Your task to perform on an android device: turn on data saver in the chrome app Image 0: 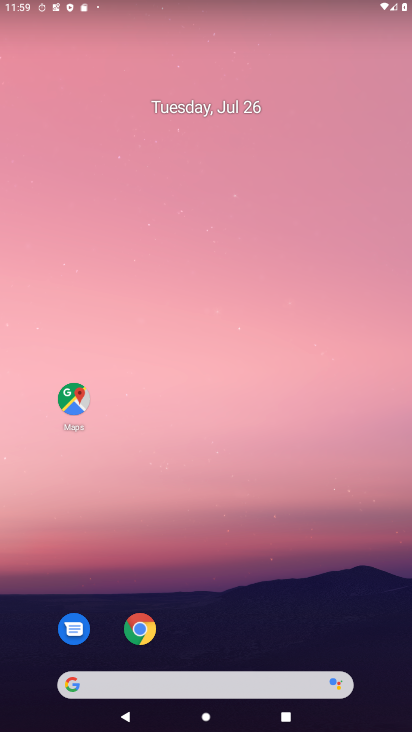
Step 0: drag from (353, 598) to (231, 16)
Your task to perform on an android device: turn on data saver in the chrome app Image 1: 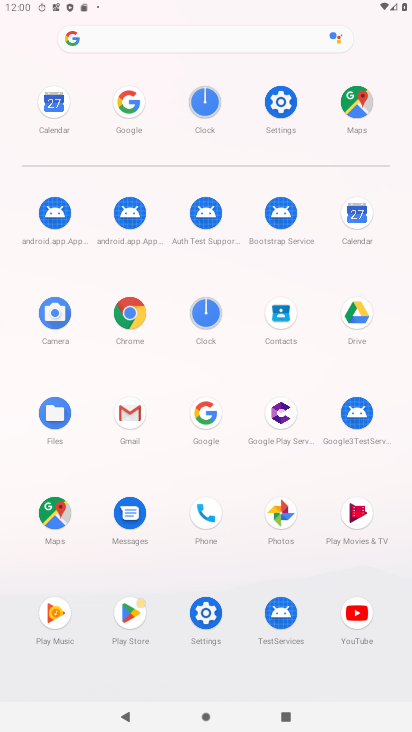
Step 1: click (141, 311)
Your task to perform on an android device: turn on data saver in the chrome app Image 2: 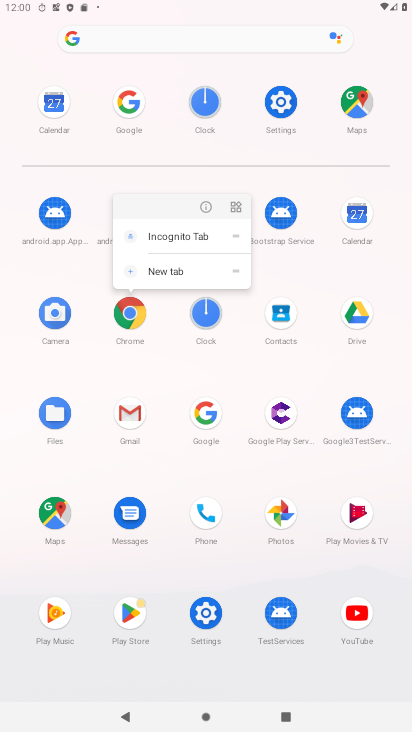
Step 2: click (133, 310)
Your task to perform on an android device: turn on data saver in the chrome app Image 3: 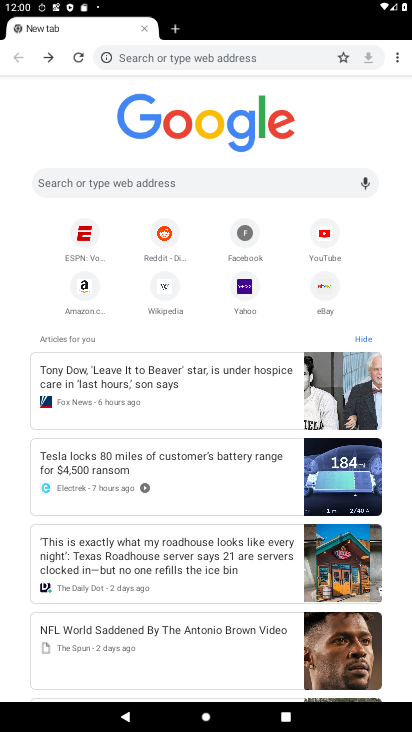
Step 3: click (396, 54)
Your task to perform on an android device: turn on data saver in the chrome app Image 4: 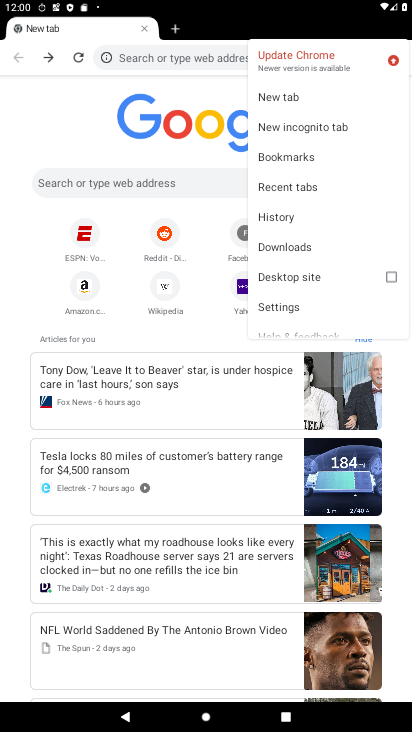
Step 4: click (286, 305)
Your task to perform on an android device: turn on data saver in the chrome app Image 5: 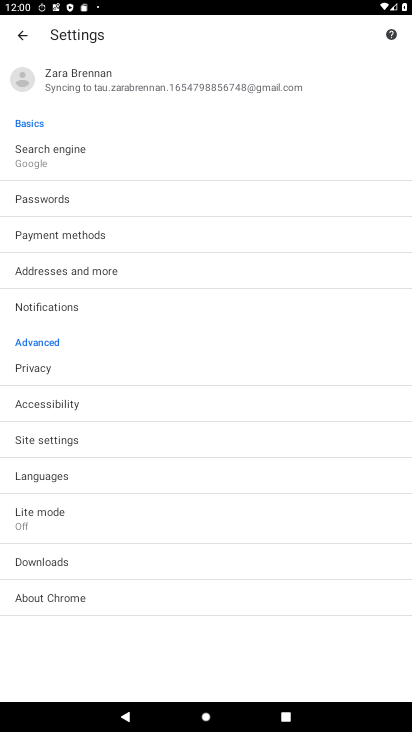
Step 5: click (26, 527)
Your task to perform on an android device: turn on data saver in the chrome app Image 6: 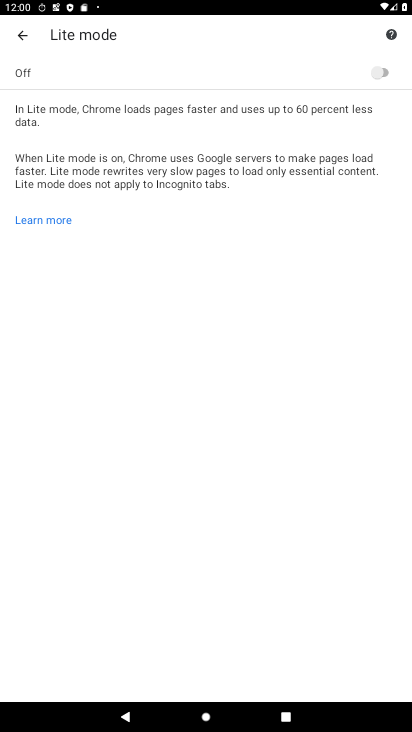
Step 6: click (371, 73)
Your task to perform on an android device: turn on data saver in the chrome app Image 7: 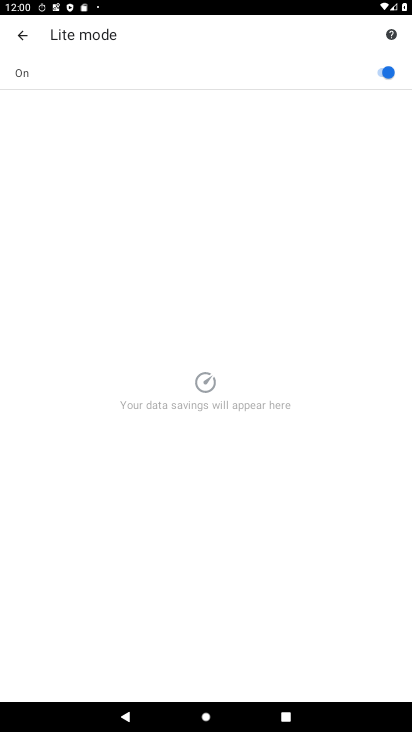
Step 7: task complete